Your task to perform on an android device: manage bookmarks in the chrome app Image 0: 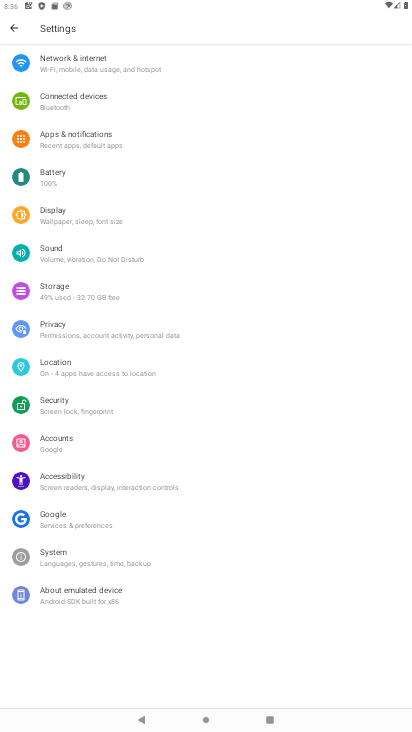
Step 0: press home button
Your task to perform on an android device: manage bookmarks in the chrome app Image 1: 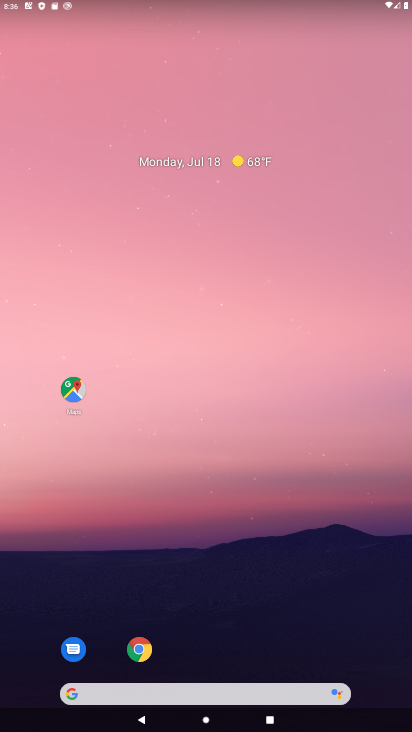
Step 1: click (147, 651)
Your task to perform on an android device: manage bookmarks in the chrome app Image 2: 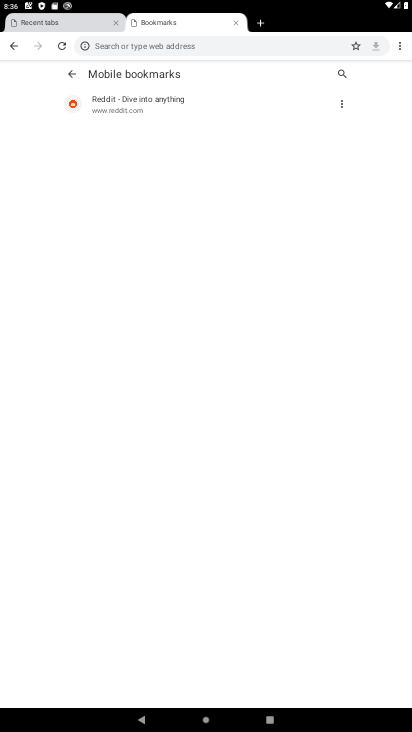
Step 2: click (340, 105)
Your task to perform on an android device: manage bookmarks in the chrome app Image 3: 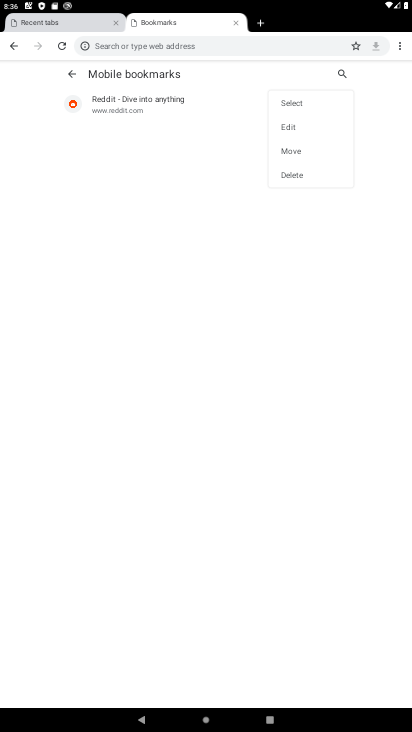
Step 3: click (292, 178)
Your task to perform on an android device: manage bookmarks in the chrome app Image 4: 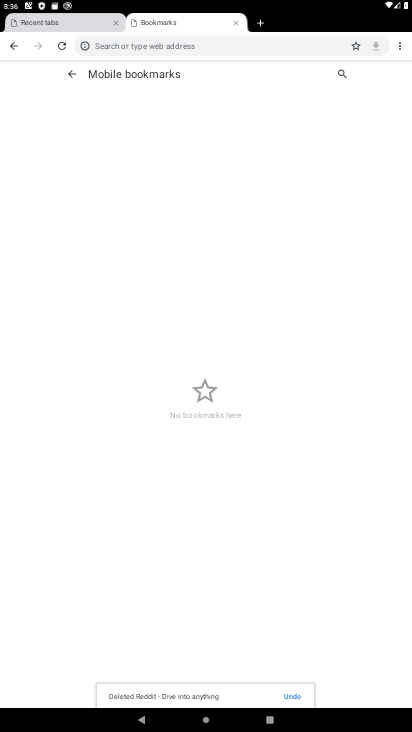
Step 4: task complete